Your task to perform on an android device: toggle airplane mode Image 0: 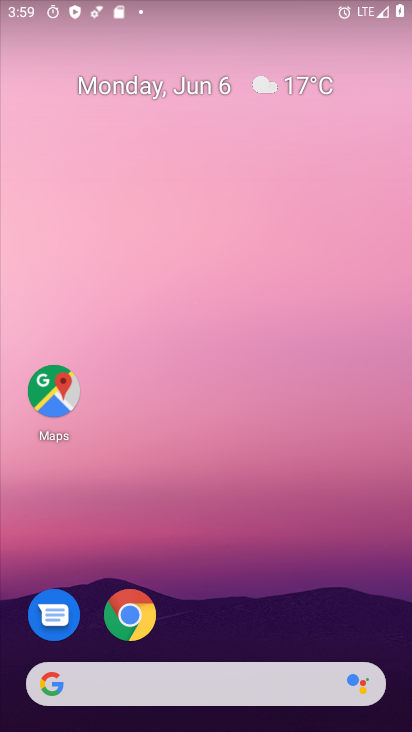
Step 0: drag from (189, 612) to (236, 56)
Your task to perform on an android device: toggle airplane mode Image 1: 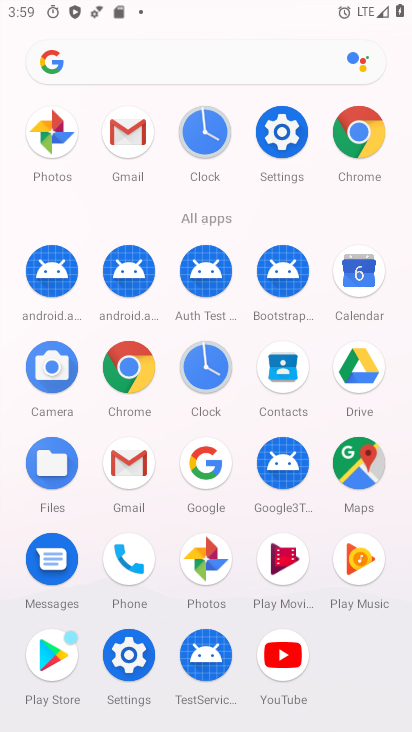
Step 1: click (128, 364)
Your task to perform on an android device: toggle airplane mode Image 2: 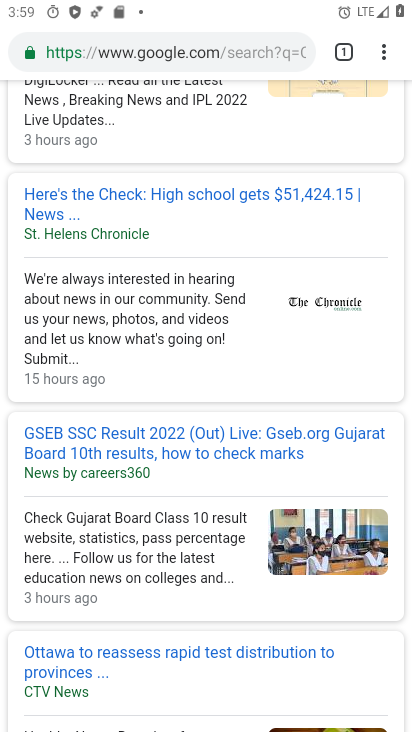
Step 2: drag from (384, 52) to (193, 579)
Your task to perform on an android device: toggle airplane mode Image 3: 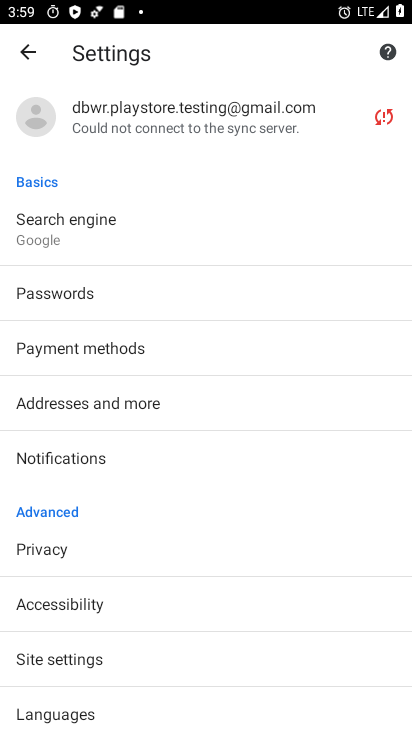
Step 3: drag from (203, 562) to (257, 194)
Your task to perform on an android device: toggle airplane mode Image 4: 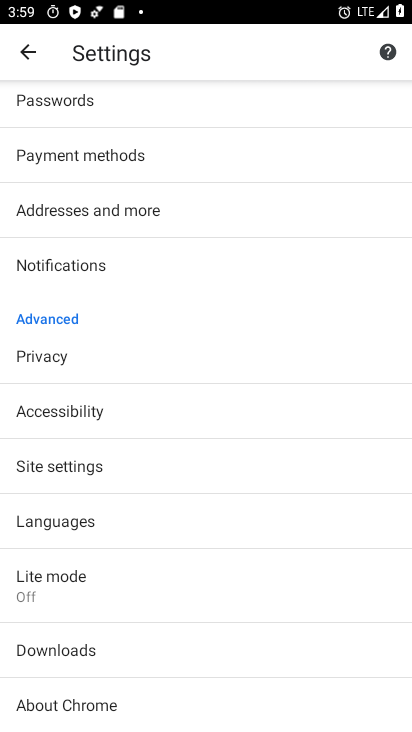
Step 4: drag from (262, 254) to (244, 678)
Your task to perform on an android device: toggle airplane mode Image 5: 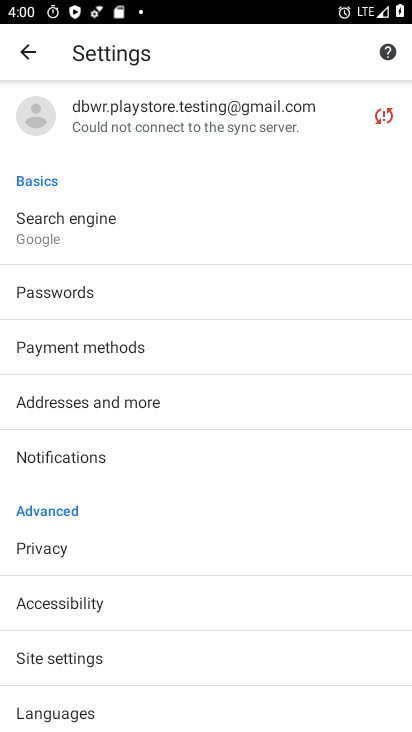
Step 5: click (22, 48)
Your task to perform on an android device: toggle airplane mode Image 6: 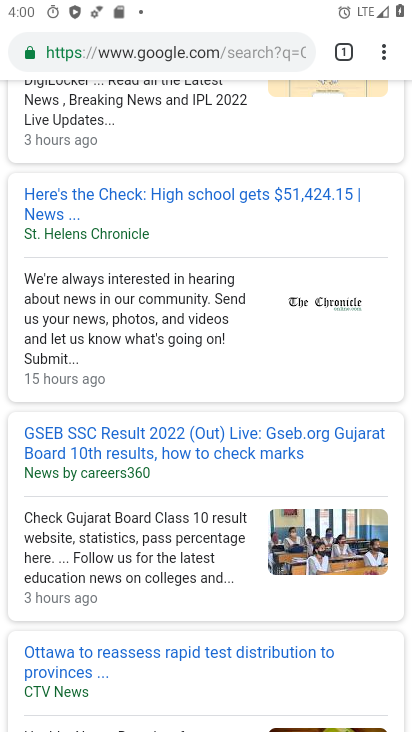
Step 6: drag from (221, 514) to (269, 105)
Your task to perform on an android device: toggle airplane mode Image 7: 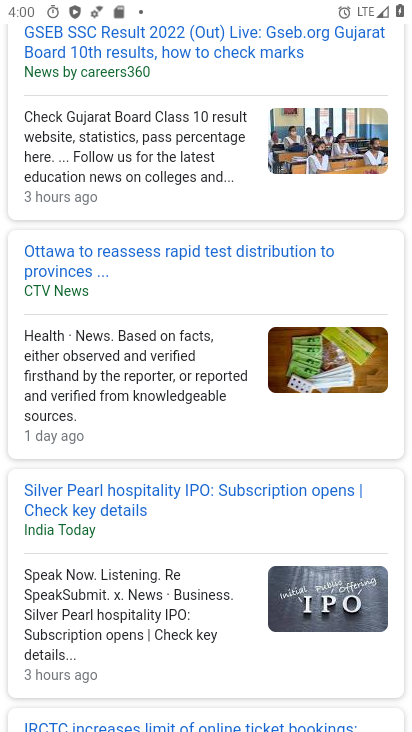
Step 7: drag from (121, 587) to (163, 159)
Your task to perform on an android device: toggle airplane mode Image 8: 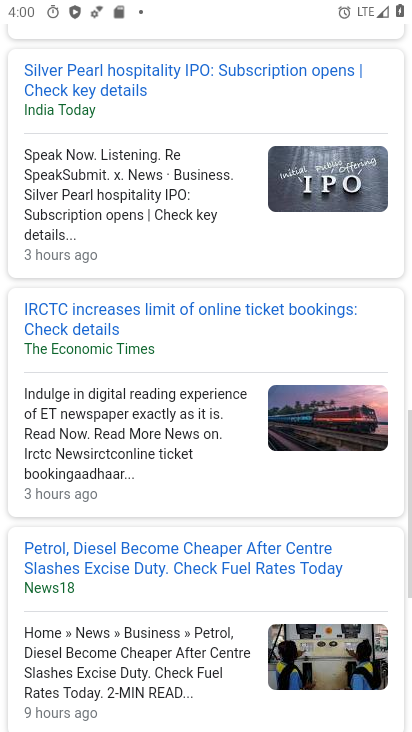
Step 8: drag from (178, 143) to (132, 666)
Your task to perform on an android device: toggle airplane mode Image 9: 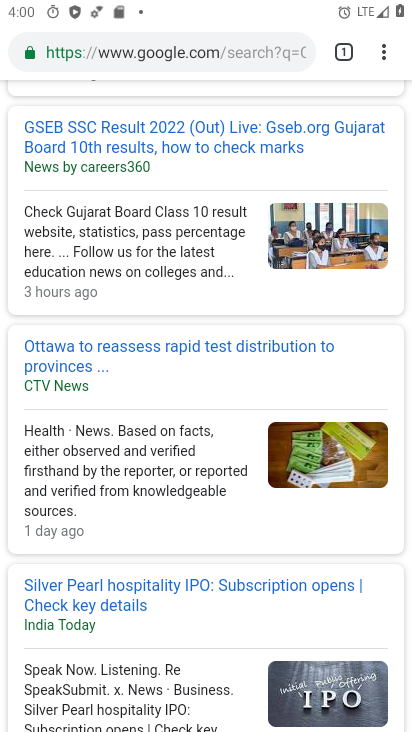
Step 9: drag from (151, 160) to (149, 597)
Your task to perform on an android device: toggle airplane mode Image 10: 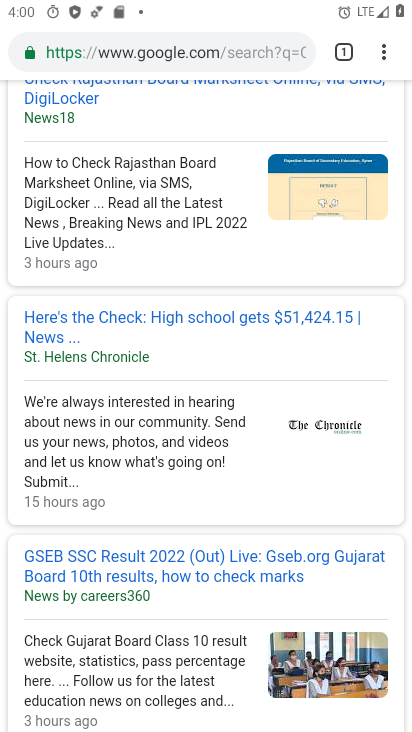
Step 10: press back button
Your task to perform on an android device: toggle airplane mode Image 11: 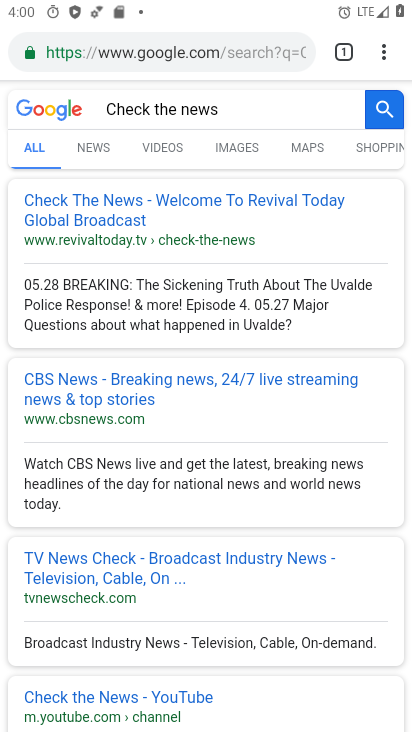
Step 11: press home button
Your task to perform on an android device: toggle airplane mode Image 12: 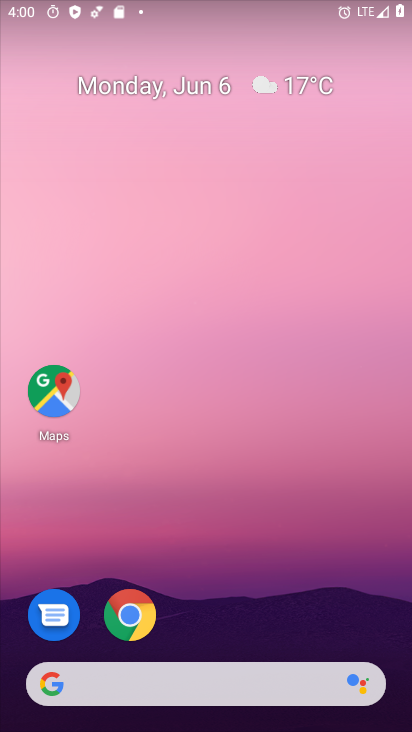
Step 12: drag from (233, 534) to (225, 32)
Your task to perform on an android device: toggle airplane mode Image 13: 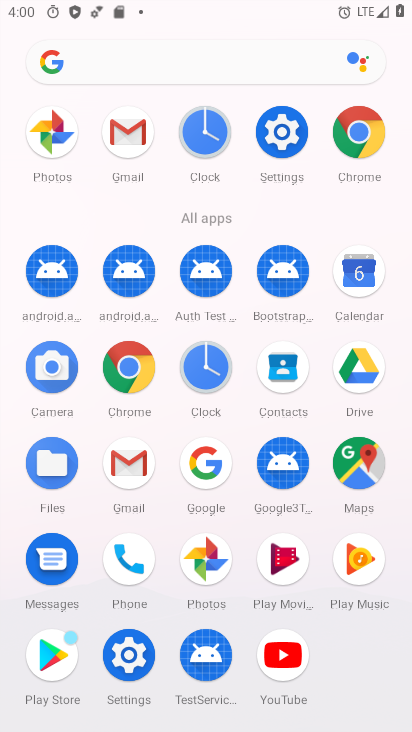
Step 13: click (280, 128)
Your task to perform on an android device: toggle airplane mode Image 14: 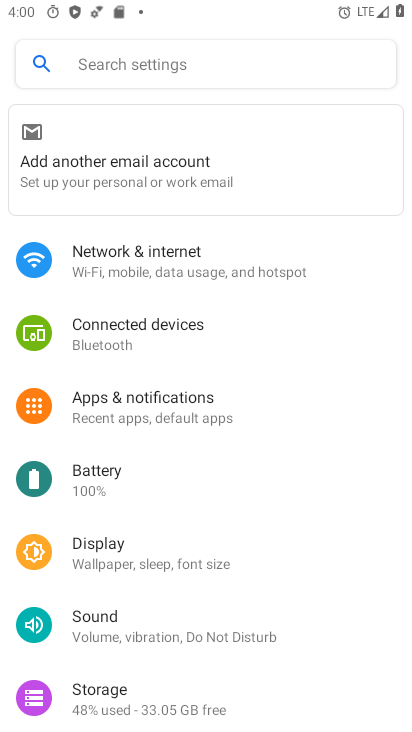
Step 14: click (200, 270)
Your task to perform on an android device: toggle airplane mode Image 15: 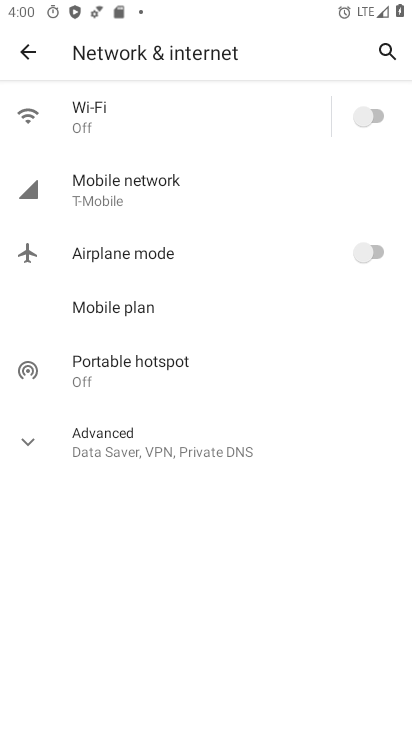
Step 15: click (52, 434)
Your task to perform on an android device: toggle airplane mode Image 16: 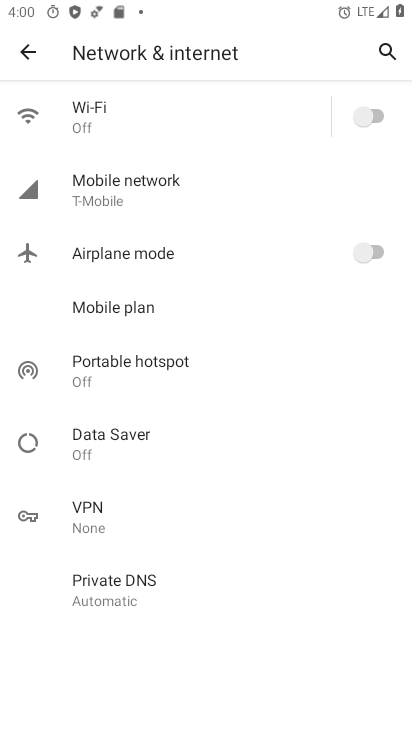
Step 16: click (360, 251)
Your task to perform on an android device: toggle airplane mode Image 17: 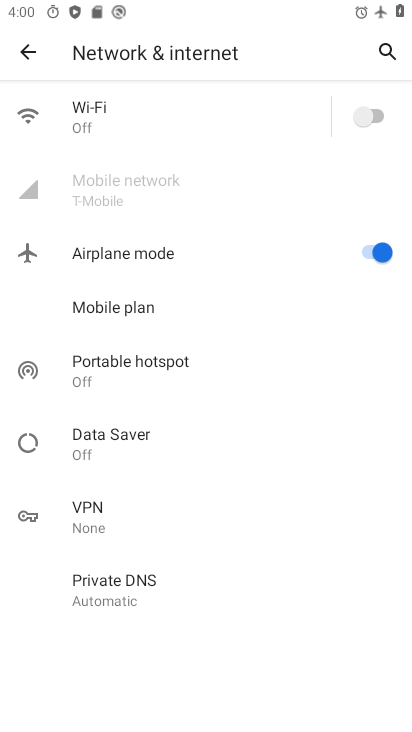
Step 17: task complete